Your task to perform on an android device: See recent photos Image 0: 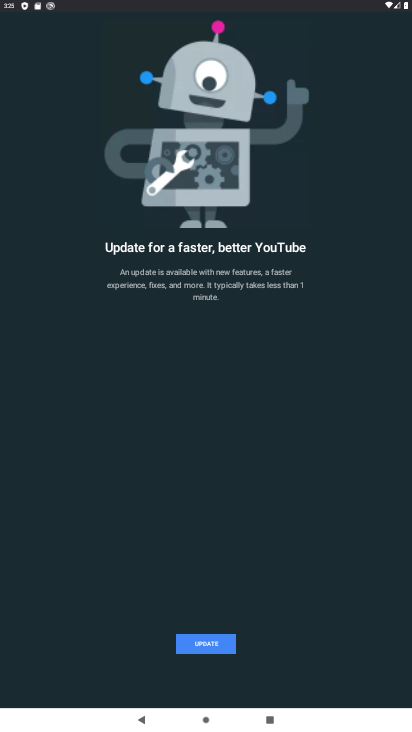
Step 0: press home button
Your task to perform on an android device: See recent photos Image 1: 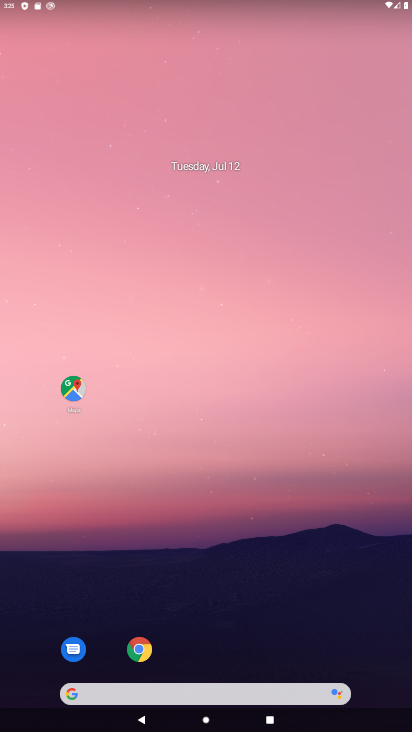
Step 1: drag from (195, 666) to (163, 364)
Your task to perform on an android device: See recent photos Image 2: 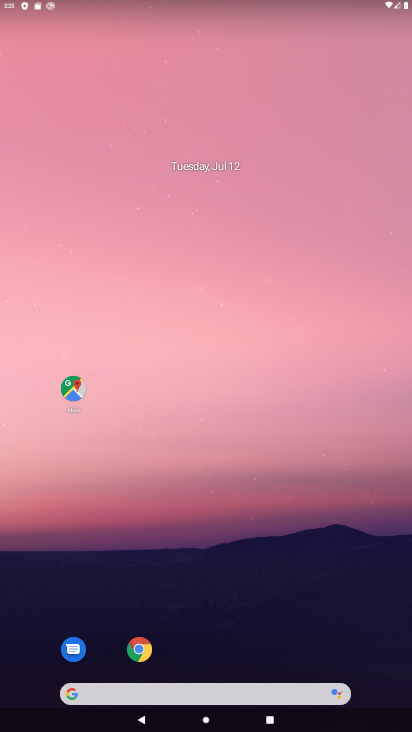
Step 2: click (252, 191)
Your task to perform on an android device: See recent photos Image 3: 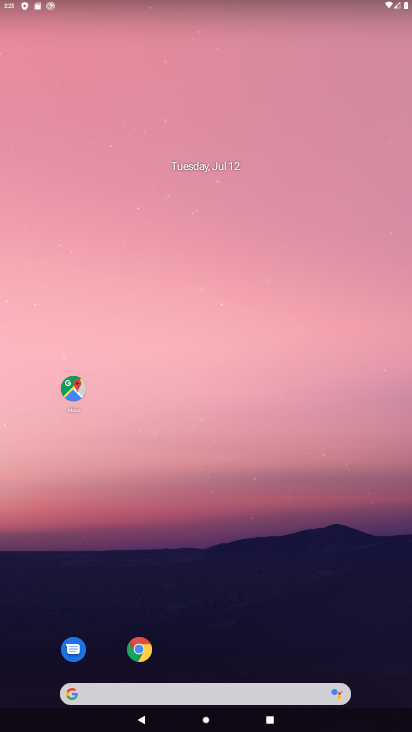
Step 3: drag from (121, 669) to (130, 134)
Your task to perform on an android device: See recent photos Image 4: 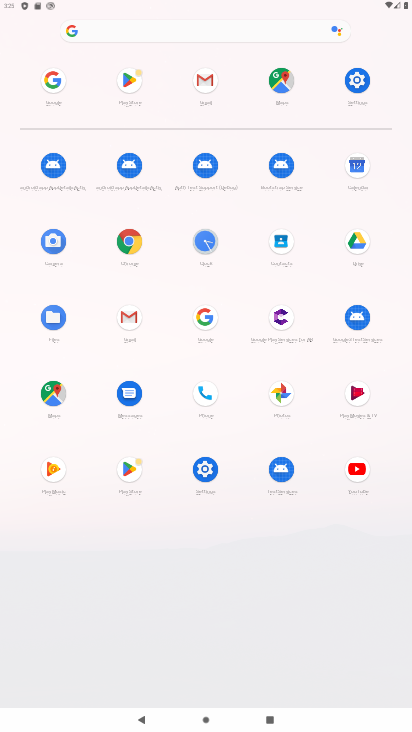
Step 4: click (284, 392)
Your task to perform on an android device: See recent photos Image 5: 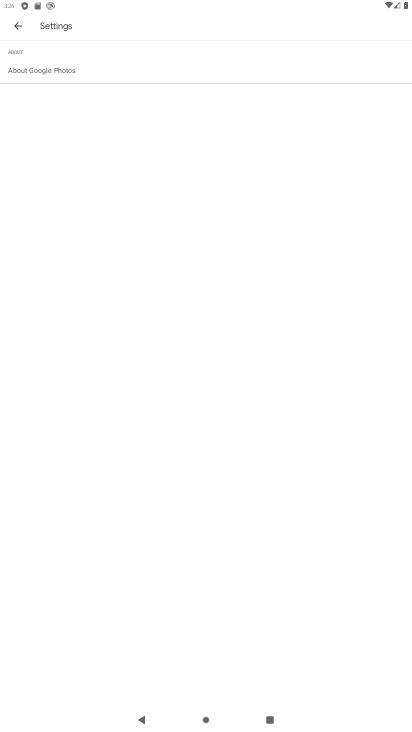
Step 5: click (16, 25)
Your task to perform on an android device: See recent photos Image 6: 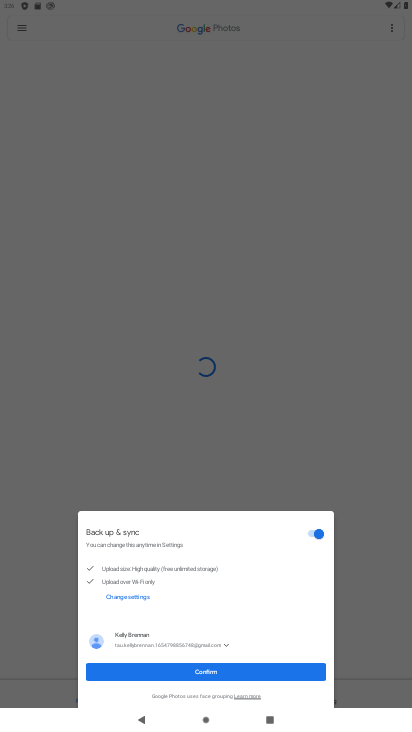
Step 6: click (198, 669)
Your task to perform on an android device: See recent photos Image 7: 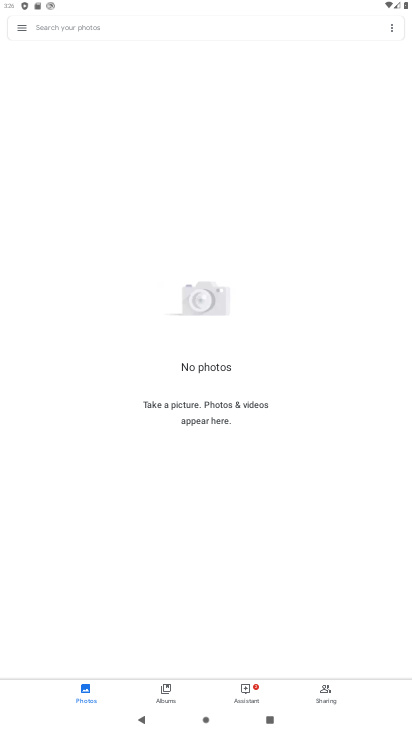
Step 7: task complete